Your task to perform on an android device: check out phone information Image 0: 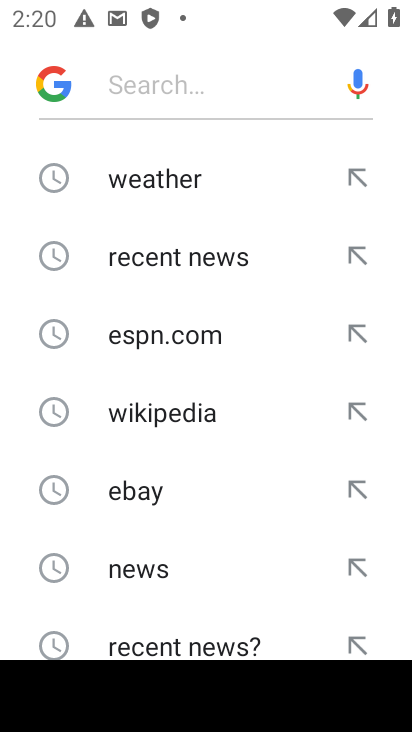
Step 0: press home button
Your task to perform on an android device: check out phone information Image 1: 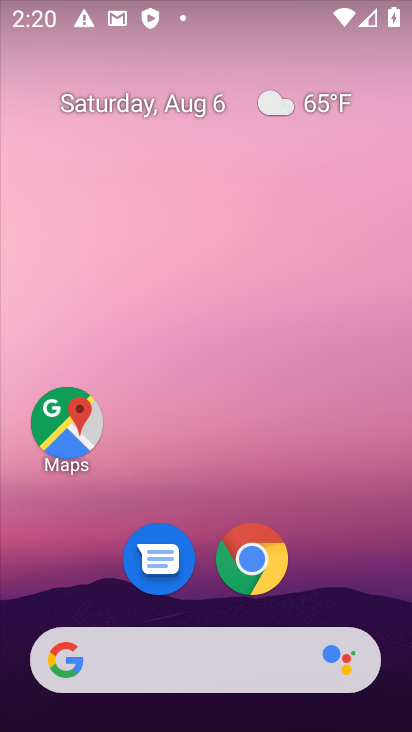
Step 1: drag from (206, 494) to (206, 138)
Your task to perform on an android device: check out phone information Image 2: 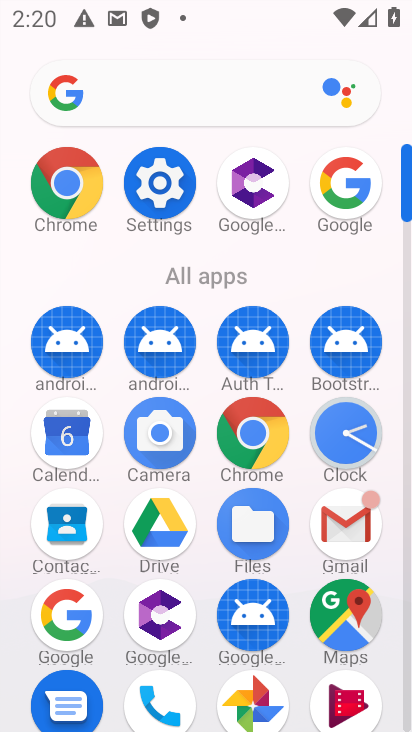
Step 2: click (175, 179)
Your task to perform on an android device: check out phone information Image 3: 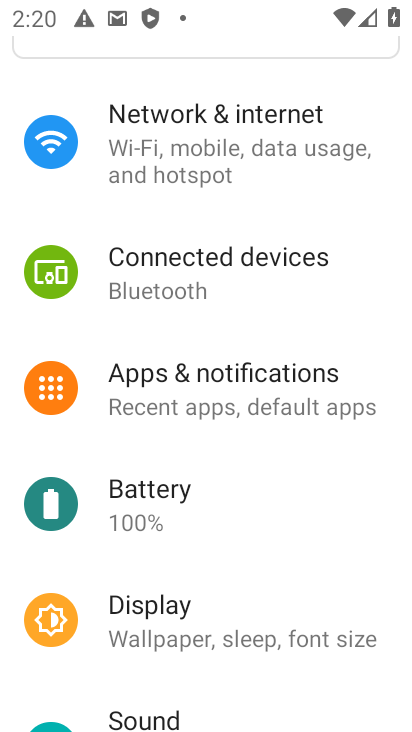
Step 3: drag from (233, 617) to (246, 178)
Your task to perform on an android device: check out phone information Image 4: 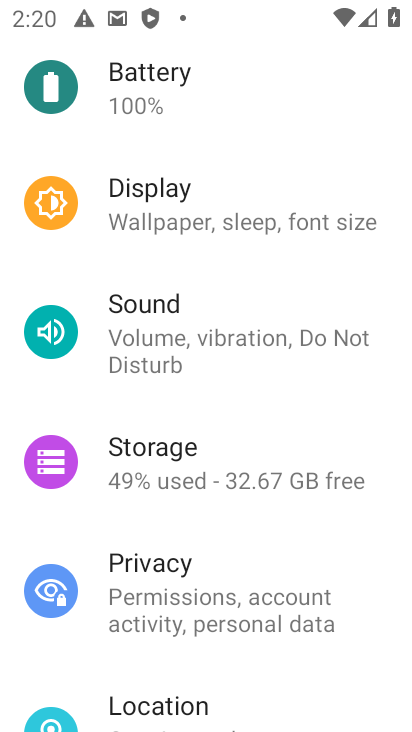
Step 4: drag from (270, 603) to (229, 248)
Your task to perform on an android device: check out phone information Image 5: 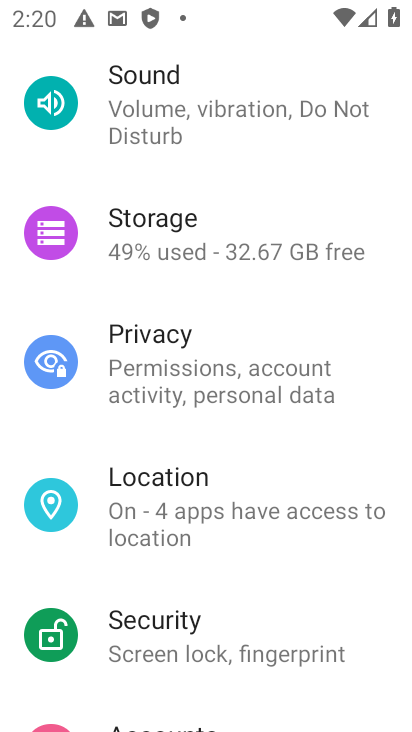
Step 5: drag from (217, 616) to (222, 249)
Your task to perform on an android device: check out phone information Image 6: 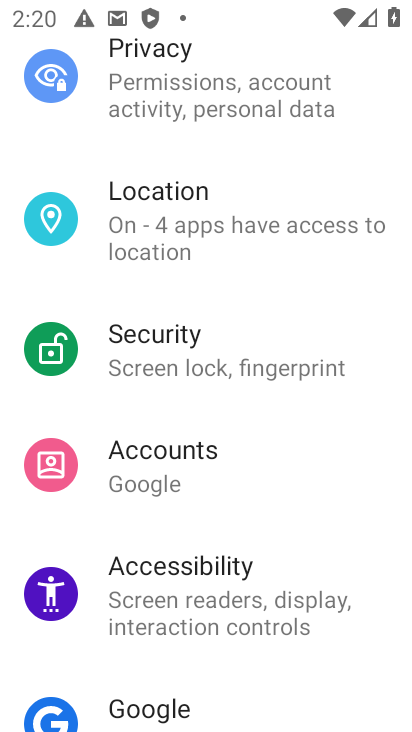
Step 6: drag from (229, 630) to (254, 273)
Your task to perform on an android device: check out phone information Image 7: 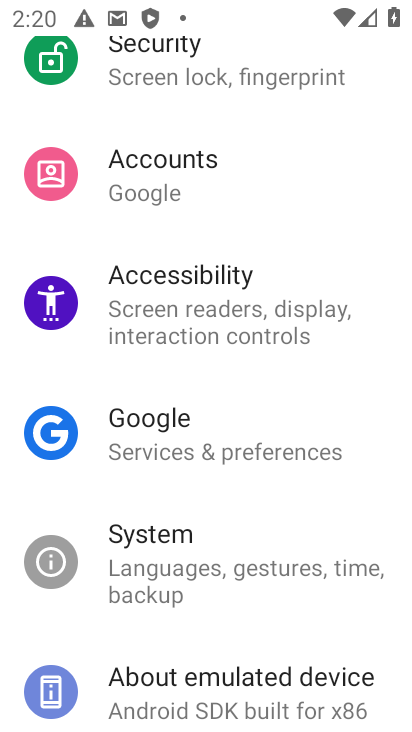
Step 7: click (224, 669)
Your task to perform on an android device: check out phone information Image 8: 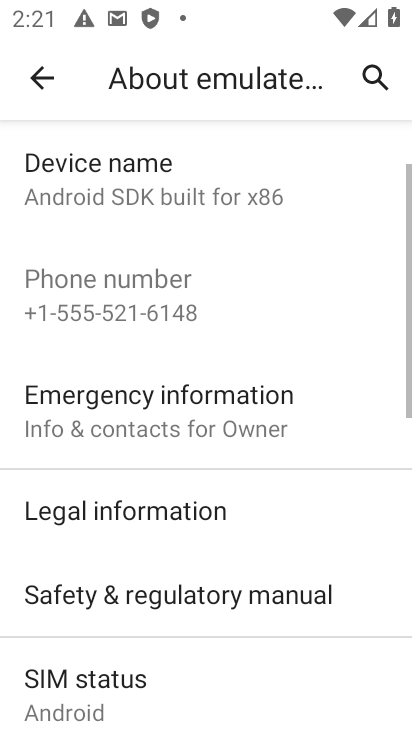
Step 8: task complete